Your task to perform on an android device: Open location settings Image 0: 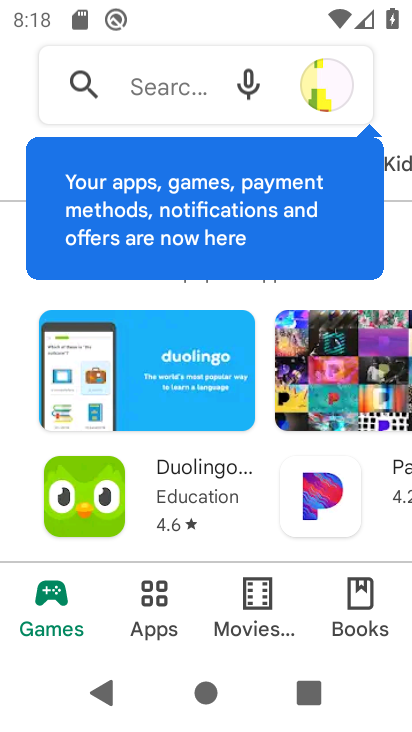
Step 0: press home button
Your task to perform on an android device: Open location settings Image 1: 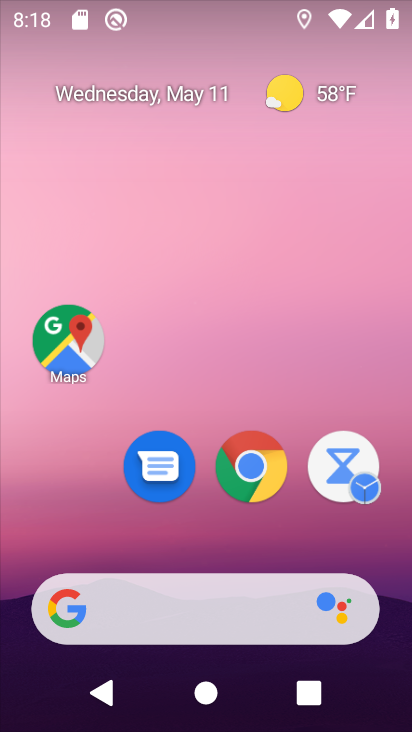
Step 1: drag from (246, 526) to (191, 45)
Your task to perform on an android device: Open location settings Image 2: 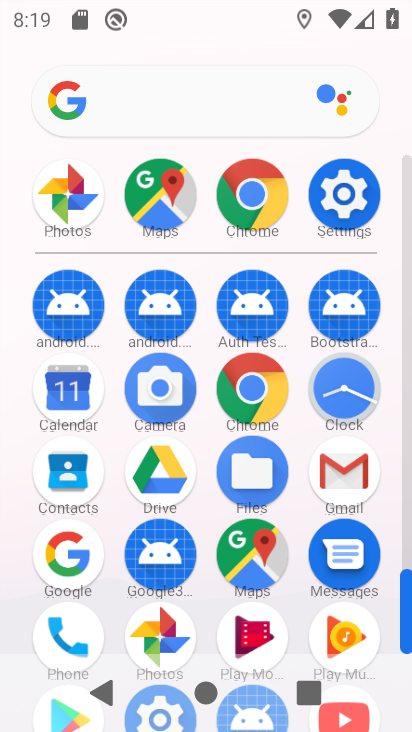
Step 2: click (325, 200)
Your task to perform on an android device: Open location settings Image 3: 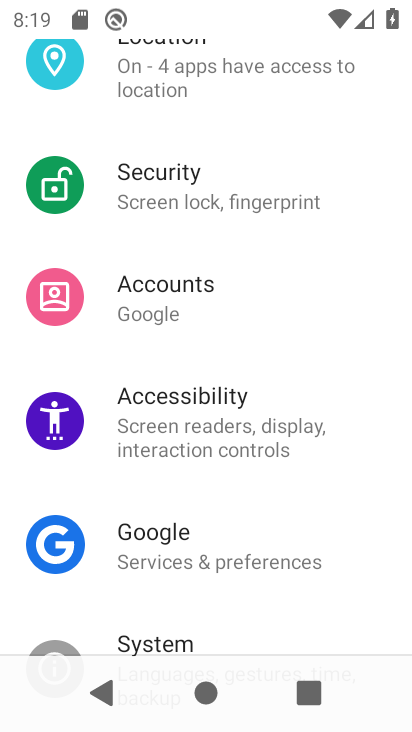
Step 3: click (210, 100)
Your task to perform on an android device: Open location settings Image 4: 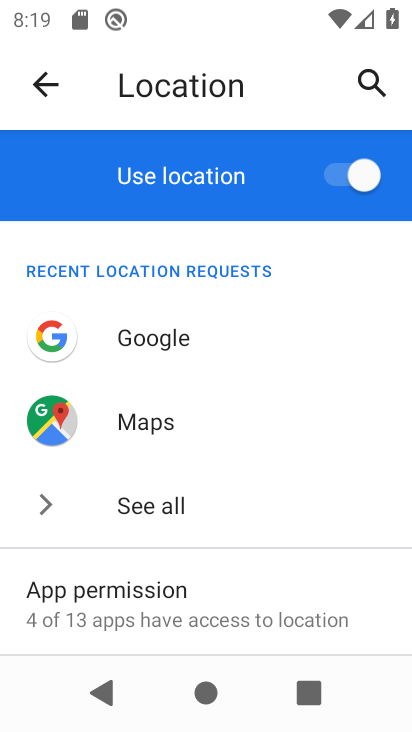
Step 4: task complete